Your task to perform on an android device: turn off notifications in google photos Image 0: 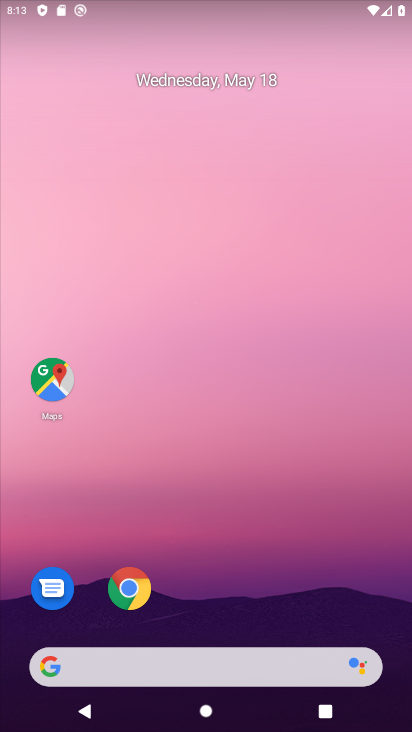
Step 0: drag from (335, 623) to (369, 28)
Your task to perform on an android device: turn off notifications in google photos Image 1: 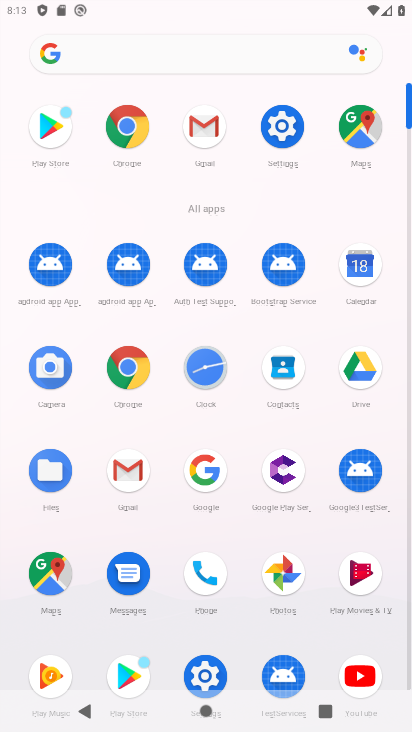
Step 1: click (283, 574)
Your task to perform on an android device: turn off notifications in google photos Image 2: 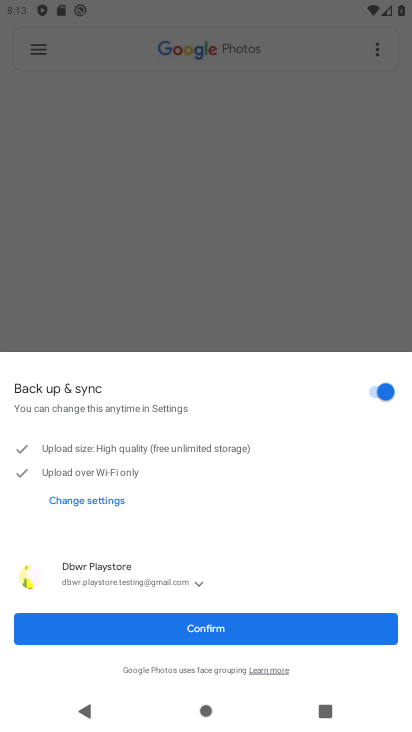
Step 2: click (192, 623)
Your task to perform on an android device: turn off notifications in google photos Image 3: 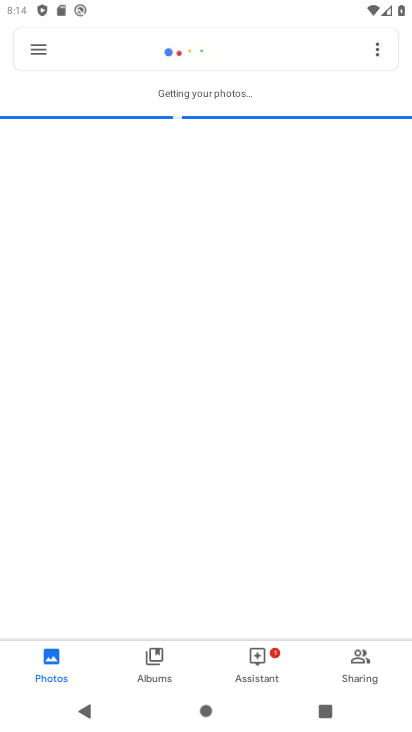
Step 3: click (41, 47)
Your task to perform on an android device: turn off notifications in google photos Image 4: 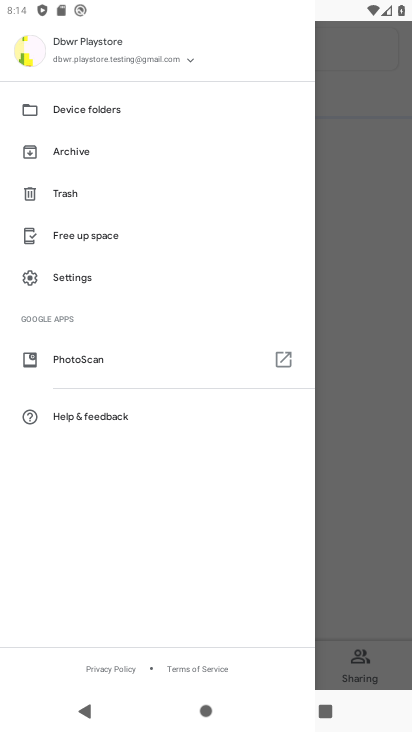
Step 4: click (72, 281)
Your task to perform on an android device: turn off notifications in google photos Image 5: 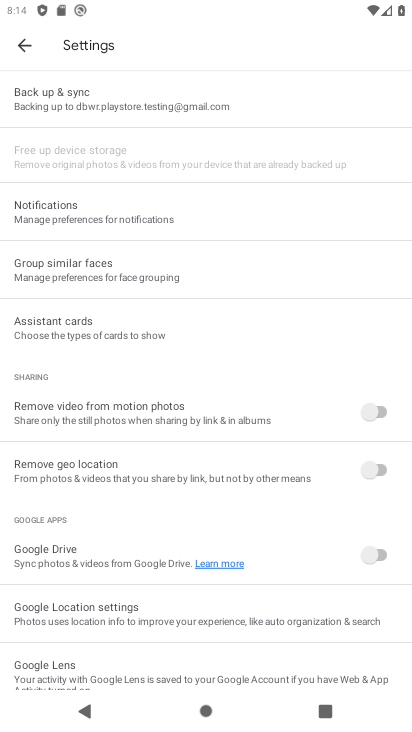
Step 5: click (55, 217)
Your task to perform on an android device: turn off notifications in google photos Image 6: 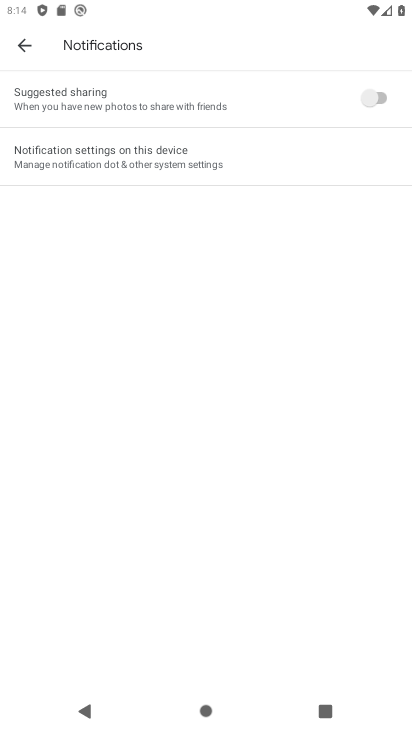
Step 6: click (82, 160)
Your task to perform on an android device: turn off notifications in google photos Image 7: 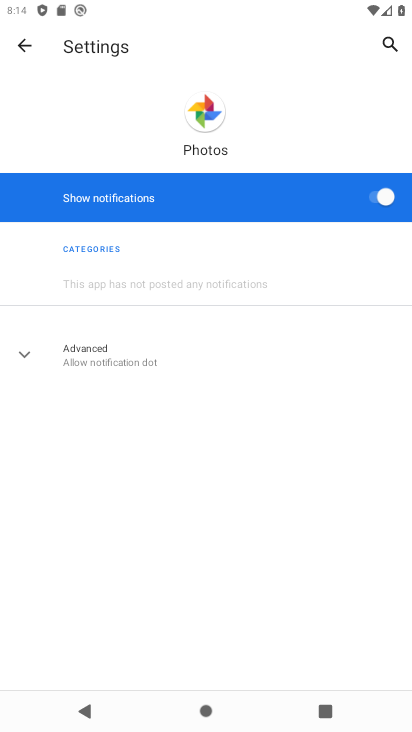
Step 7: click (386, 190)
Your task to perform on an android device: turn off notifications in google photos Image 8: 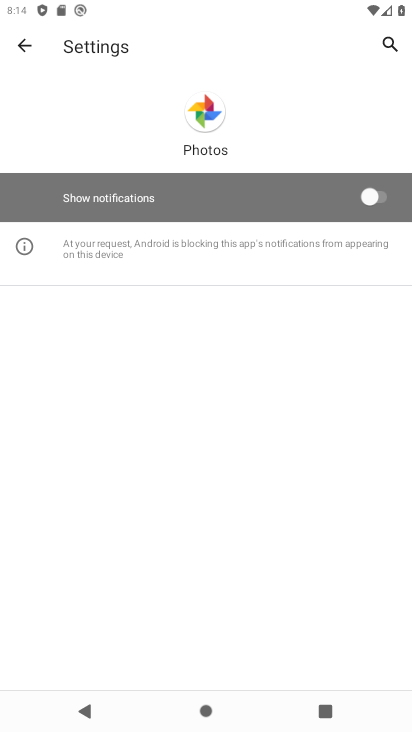
Step 8: task complete